Your task to perform on an android device: Show me popular videos on Youtube Image 0: 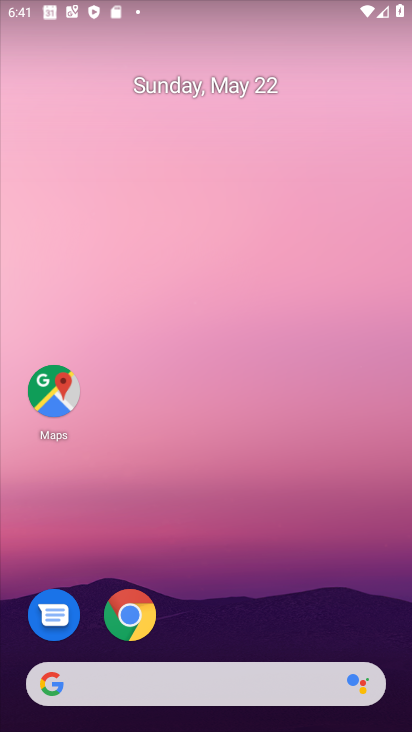
Step 0: drag from (254, 564) to (158, 141)
Your task to perform on an android device: Show me popular videos on Youtube Image 1: 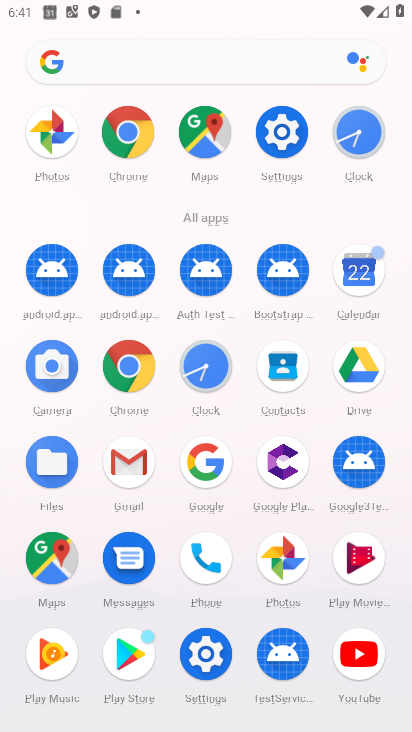
Step 1: click (358, 656)
Your task to perform on an android device: Show me popular videos on Youtube Image 2: 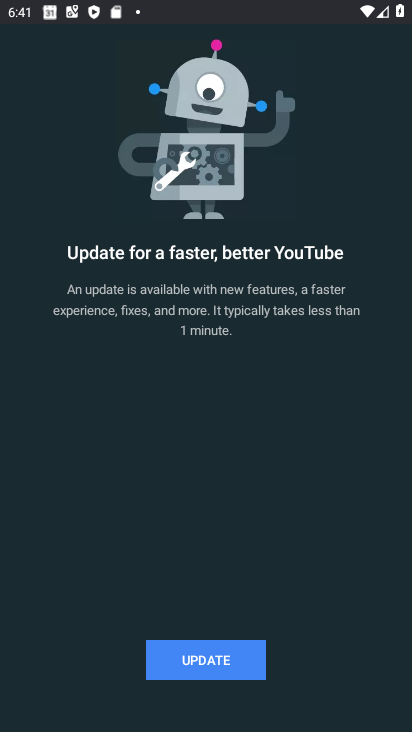
Step 2: click (198, 659)
Your task to perform on an android device: Show me popular videos on Youtube Image 3: 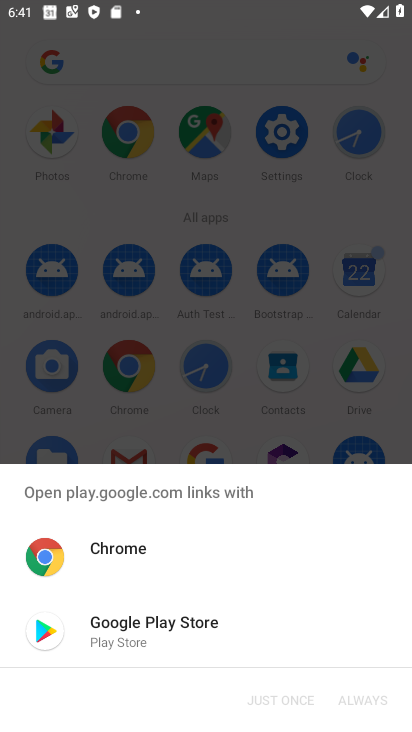
Step 3: click (137, 624)
Your task to perform on an android device: Show me popular videos on Youtube Image 4: 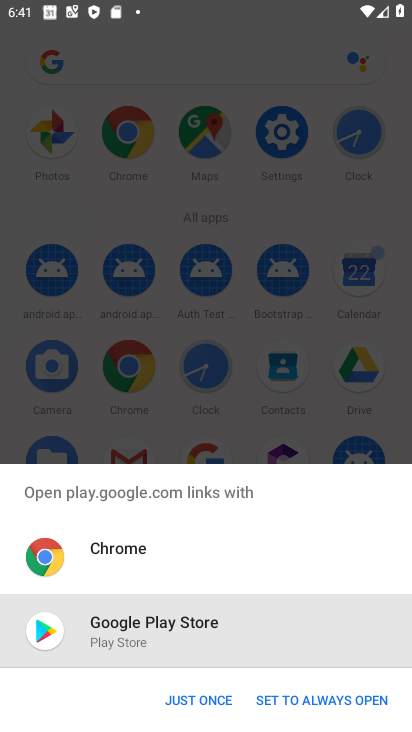
Step 4: click (189, 696)
Your task to perform on an android device: Show me popular videos on Youtube Image 5: 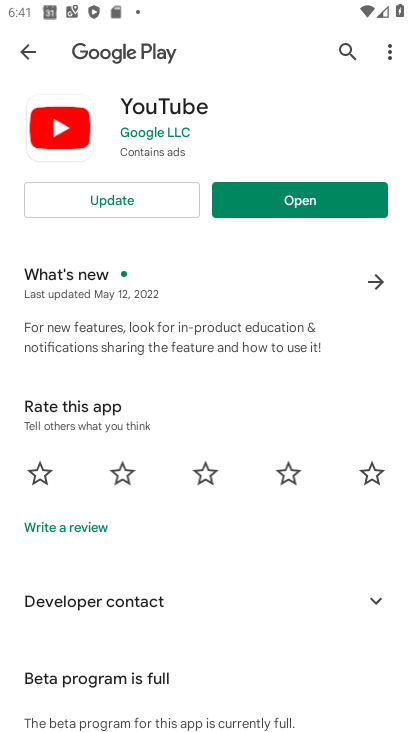
Step 5: click (158, 202)
Your task to perform on an android device: Show me popular videos on Youtube Image 6: 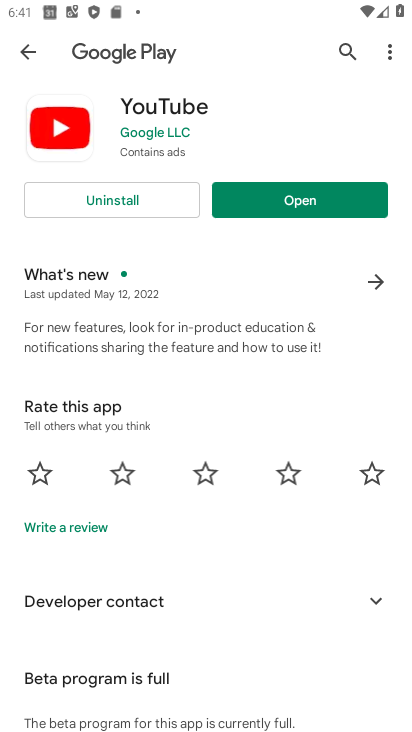
Step 6: click (300, 199)
Your task to perform on an android device: Show me popular videos on Youtube Image 7: 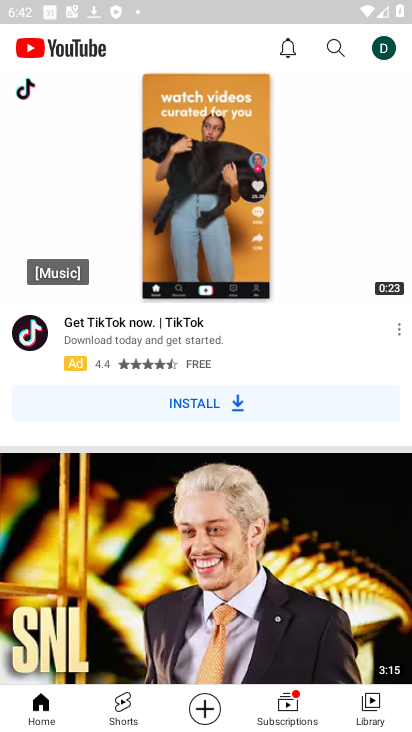
Step 7: click (123, 714)
Your task to perform on an android device: Show me popular videos on Youtube Image 8: 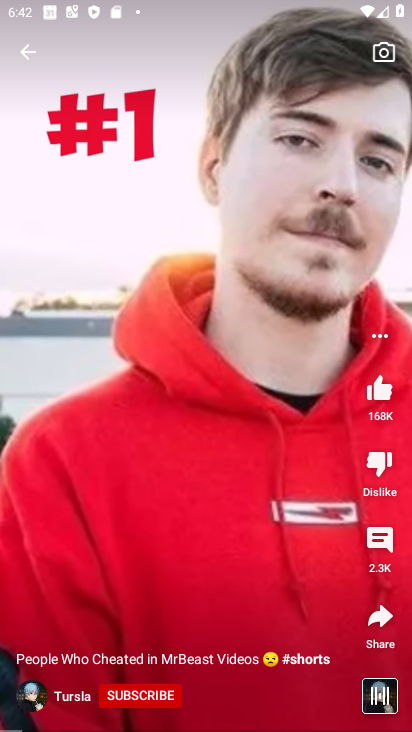
Step 8: task complete